Your task to perform on an android device: open device folders in google photos Image 0: 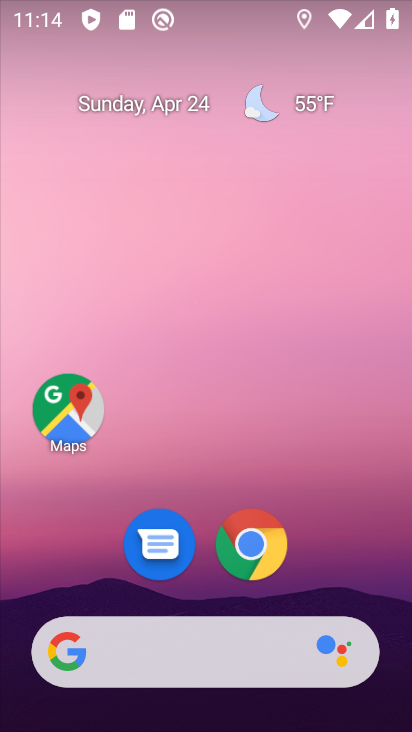
Step 0: drag from (360, 500) to (209, 85)
Your task to perform on an android device: open device folders in google photos Image 1: 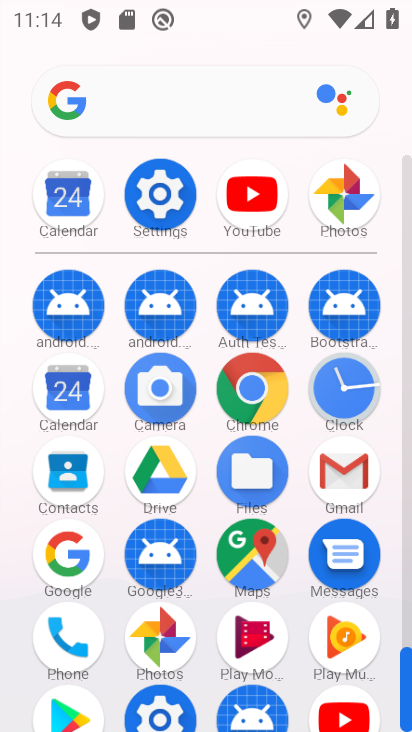
Step 1: click (344, 201)
Your task to perform on an android device: open device folders in google photos Image 2: 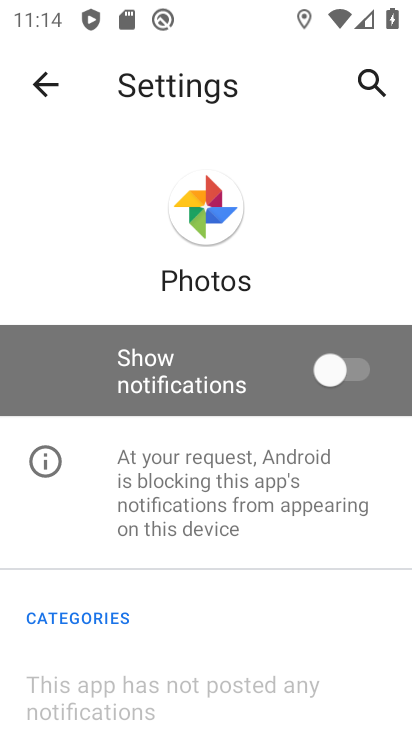
Step 2: click (32, 79)
Your task to perform on an android device: open device folders in google photos Image 3: 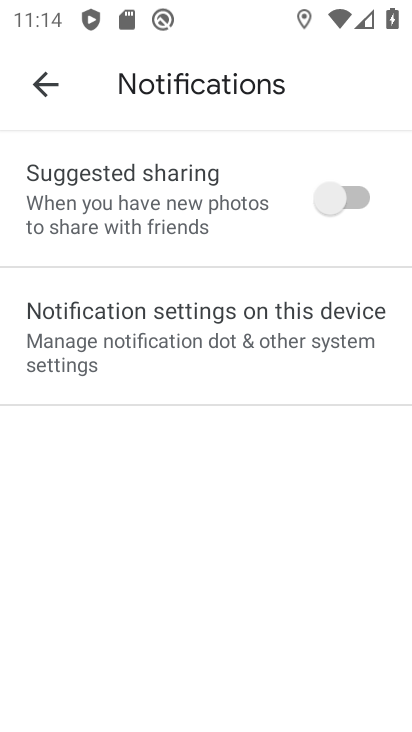
Step 3: click (32, 79)
Your task to perform on an android device: open device folders in google photos Image 4: 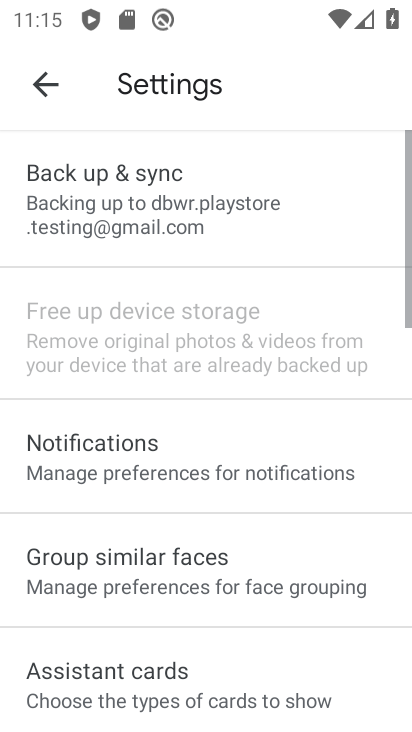
Step 4: click (39, 83)
Your task to perform on an android device: open device folders in google photos Image 5: 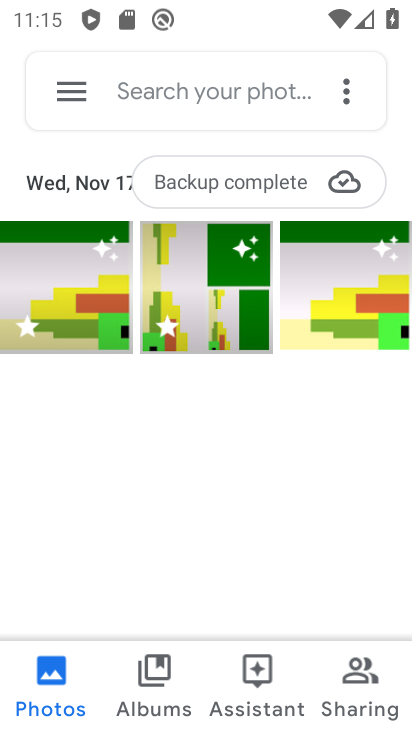
Step 5: click (86, 104)
Your task to perform on an android device: open device folders in google photos Image 6: 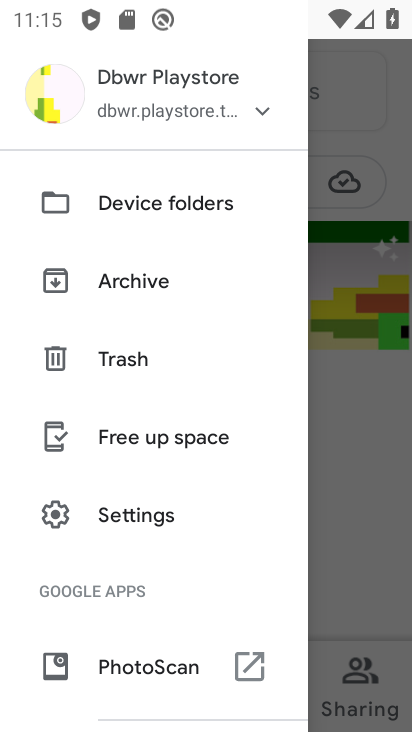
Step 6: click (161, 191)
Your task to perform on an android device: open device folders in google photos Image 7: 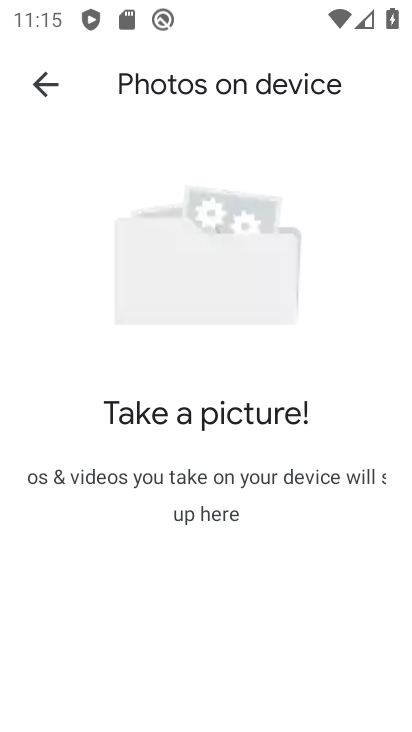
Step 7: task complete